Your task to perform on an android device: turn off sleep mode Image 0: 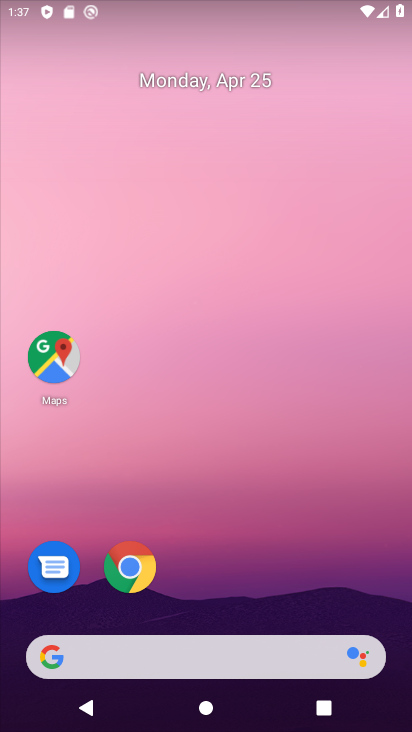
Step 0: drag from (373, 605) to (276, 10)
Your task to perform on an android device: turn off sleep mode Image 1: 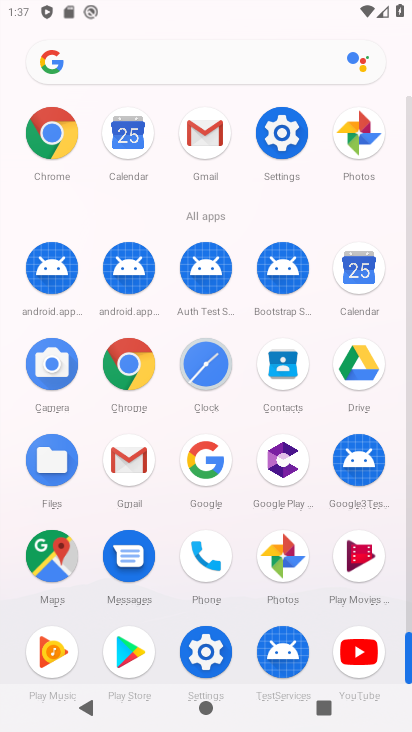
Step 1: click (204, 650)
Your task to perform on an android device: turn off sleep mode Image 2: 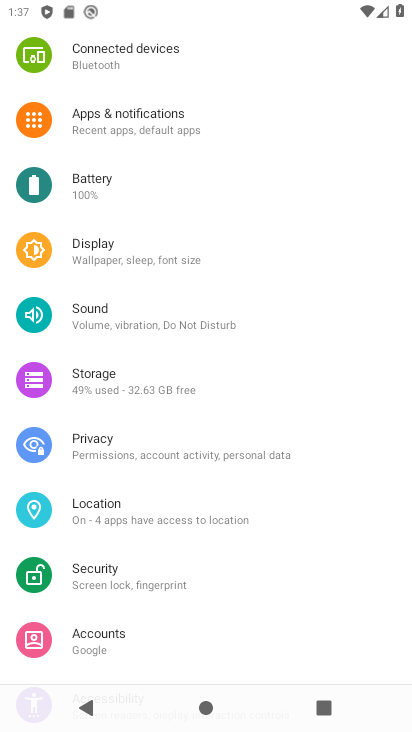
Step 2: drag from (294, 187) to (293, 524)
Your task to perform on an android device: turn off sleep mode Image 3: 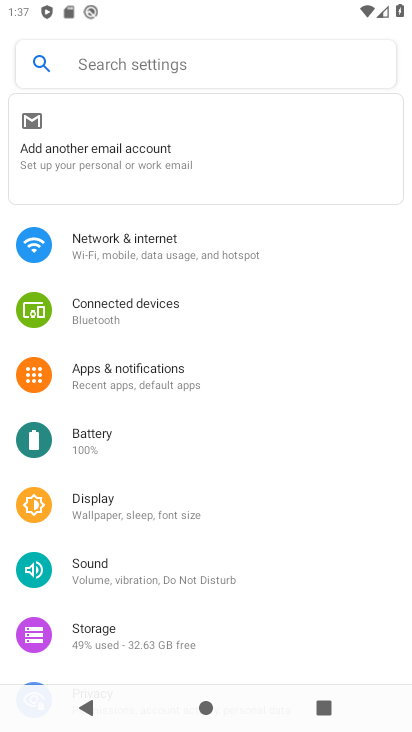
Step 3: click (101, 495)
Your task to perform on an android device: turn off sleep mode Image 4: 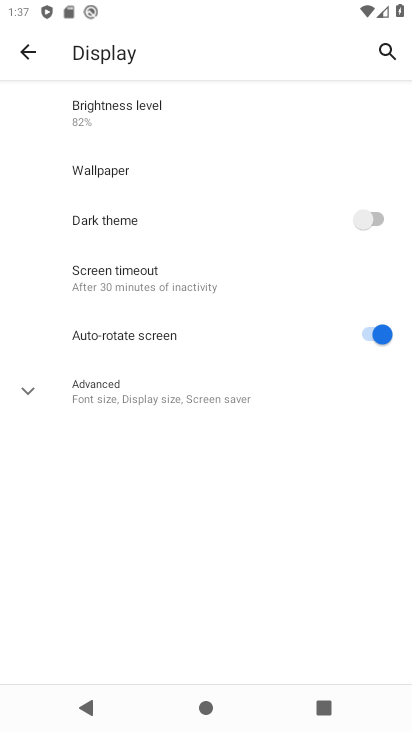
Step 4: click (28, 386)
Your task to perform on an android device: turn off sleep mode Image 5: 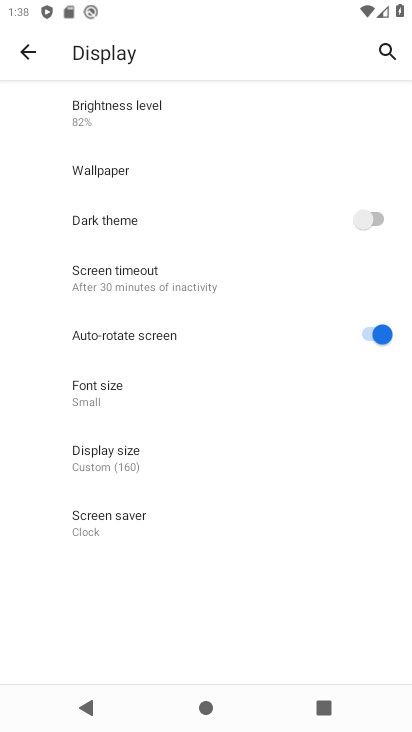
Step 5: task complete